Your task to perform on an android device: change notifications settings Image 0: 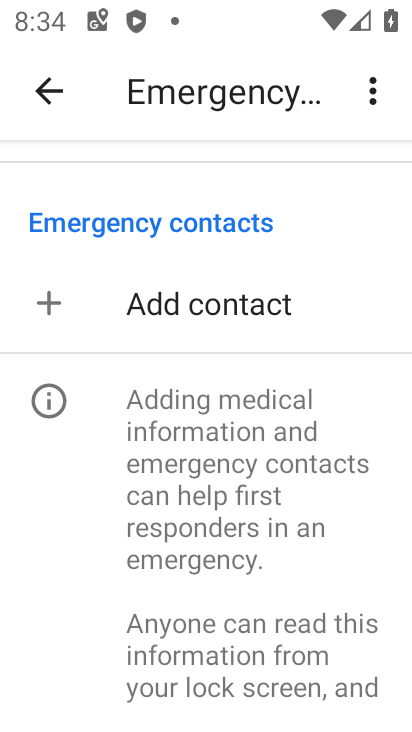
Step 0: press home button
Your task to perform on an android device: change notifications settings Image 1: 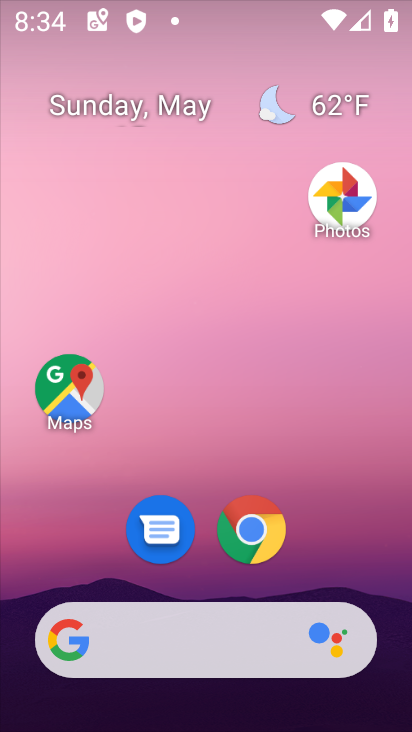
Step 1: drag from (339, 537) to (298, 60)
Your task to perform on an android device: change notifications settings Image 2: 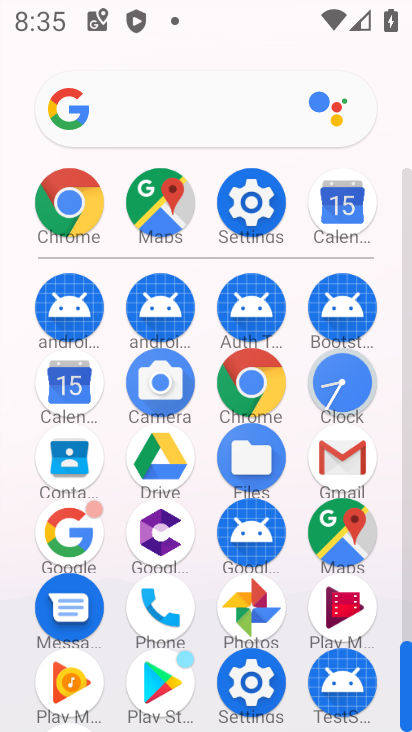
Step 2: click (251, 674)
Your task to perform on an android device: change notifications settings Image 3: 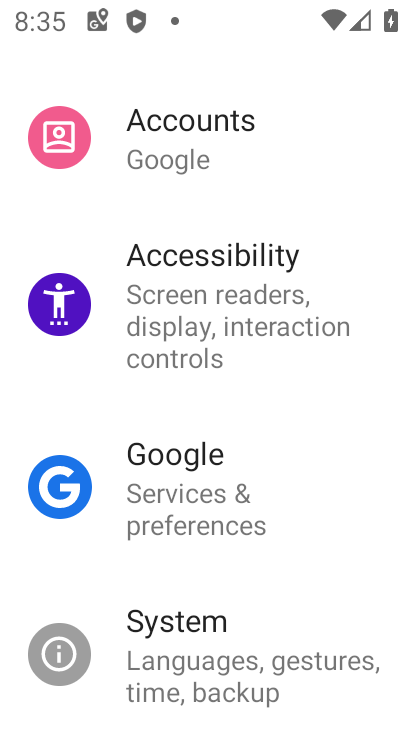
Step 3: drag from (290, 600) to (323, 223)
Your task to perform on an android device: change notifications settings Image 4: 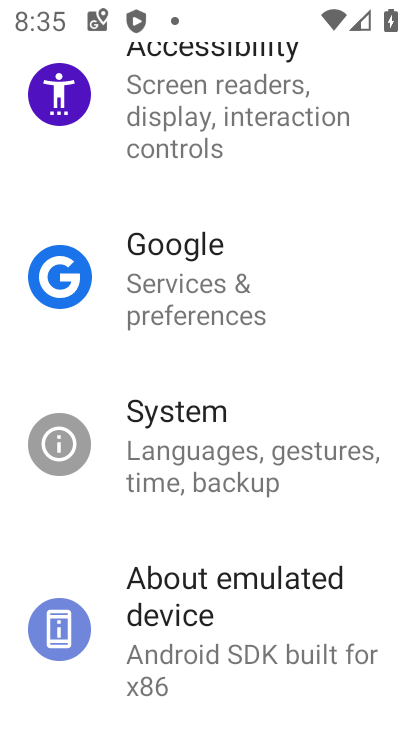
Step 4: drag from (239, 132) to (239, 616)
Your task to perform on an android device: change notifications settings Image 5: 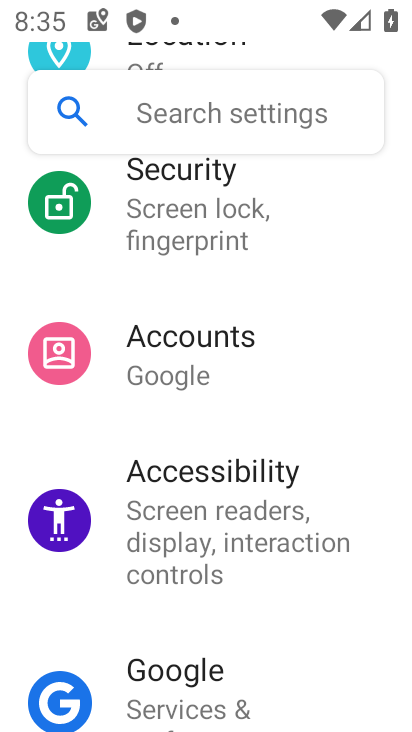
Step 5: drag from (271, 213) to (277, 653)
Your task to perform on an android device: change notifications settings Image 6: 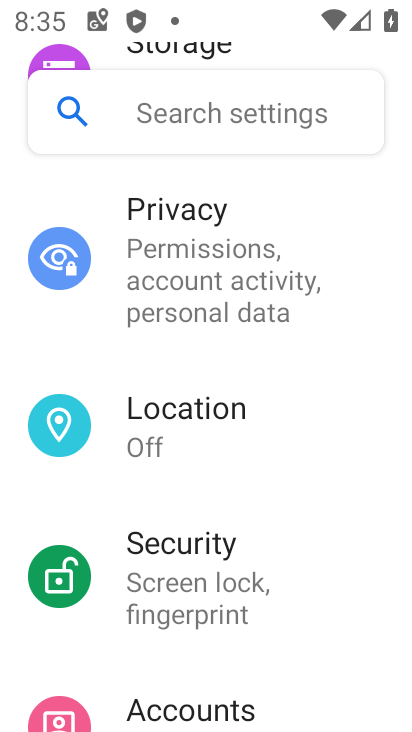
Step 6: drag from (295, 355) to (298, 731)
Your task to perform on an android device: change notifications settings Image 7: 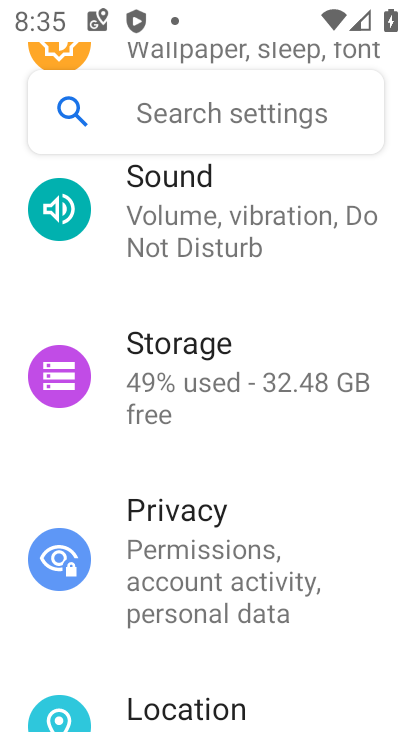
Step 7: drag from (309, 305) to (315, 634)
Your task to perform on an android device: change notifications settings Image 8: 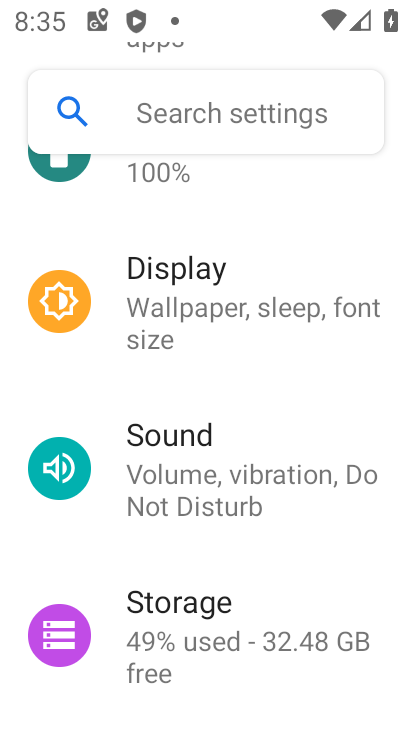
Step 8: drag from (302, 231) to (296, 587)
Your task to perform on an android device: change notifications settings Image 9: 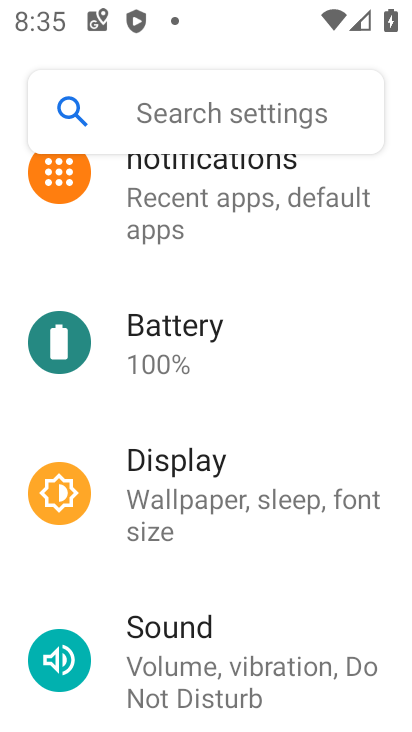
Step 9: click (266, 202)
Your task to perform on an android device: change notifications settings Image 10: 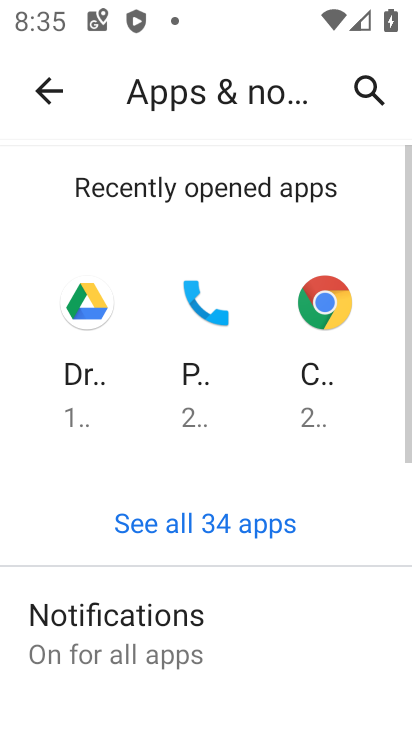
Step 10: drag from (271, 641) to (273, 195)
Your task to perform on an android device: change notifications settings Image 11: 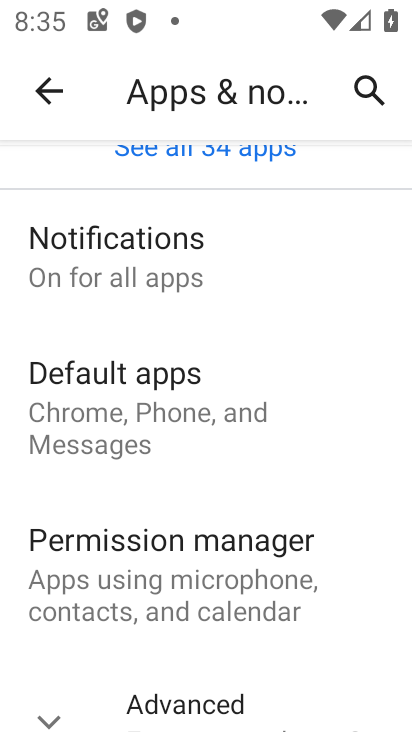
Step 11: click (144, 273)
Your task to perform on an android device: change notifications settings Image 12: 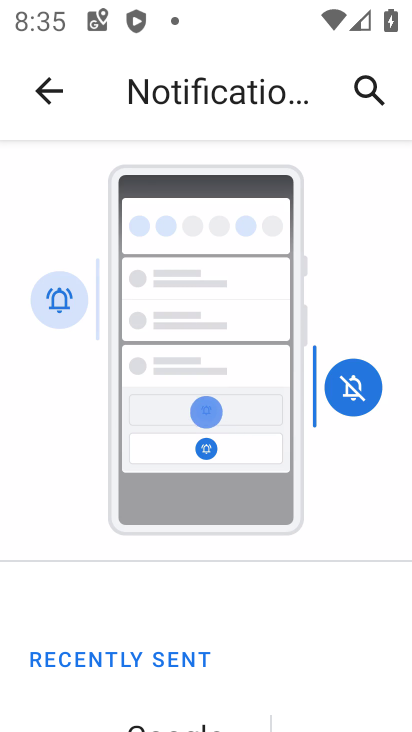
Step 12: task complete